Your task to perform on an android device: set default search engine in the chrome app Image 0: 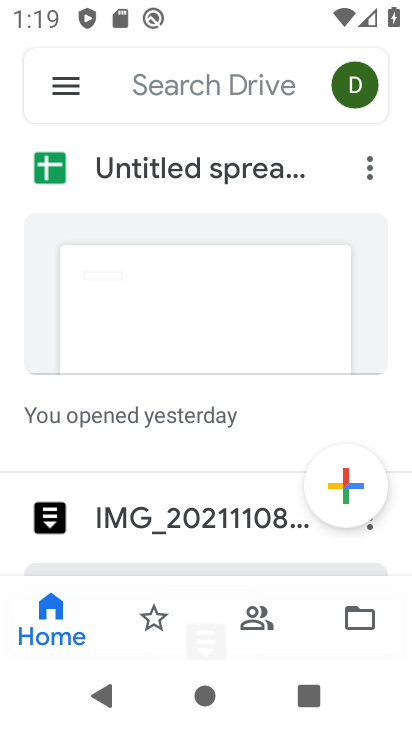
Step 0: press home button
Your task to perform on an android device: set default search engine in the chrome app Image 1: 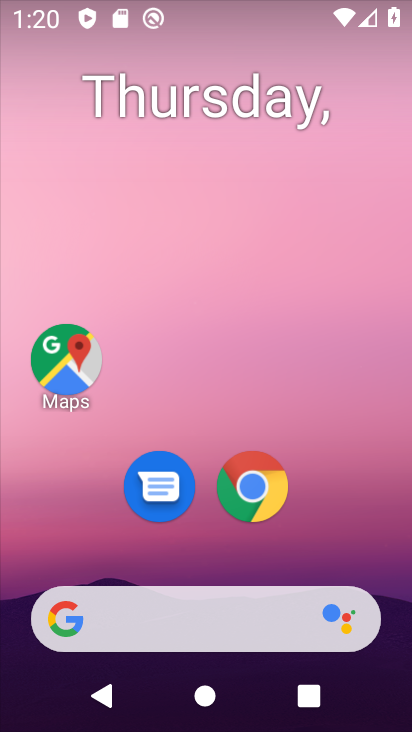
Step 1: click (254, 473)
Your task to perform on an android device: set default search engine in the chrome app Image 2: 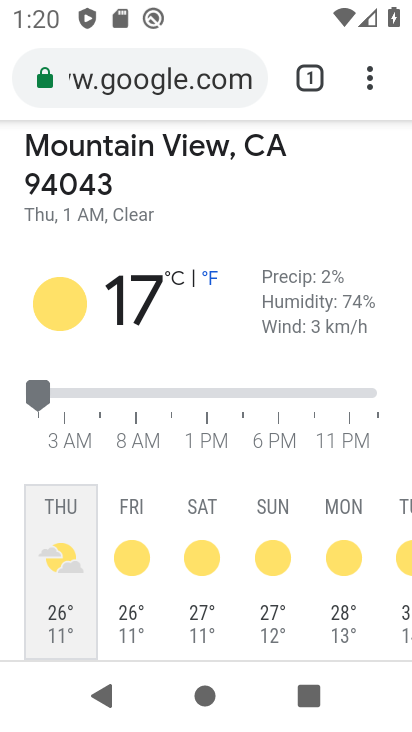
Step 2: click (358, 87)
Your task to perform on an android device: set default search engine in the chrome app Image 3: 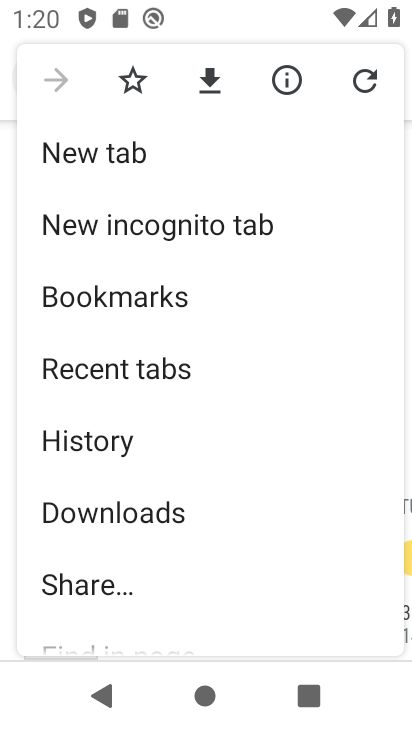
Step 3: drag from (220, 556) to (217, 215)
Your task to perform on an android device: set default search engine in the chrome app Image 4: 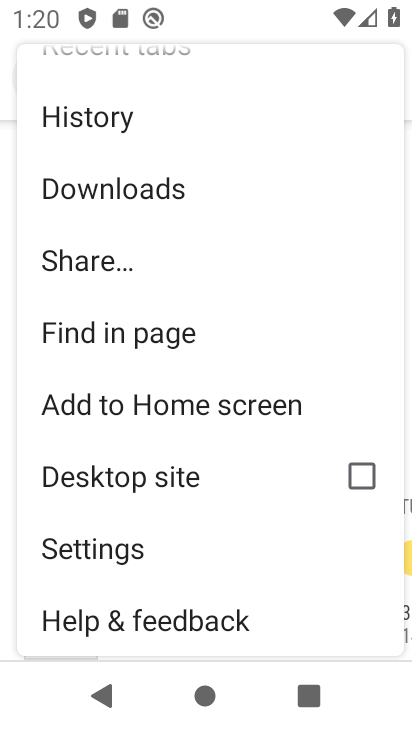
Step 4: click (193, 548)
Your task to perform on an android device: set default search engine in the chrome app Image 5: 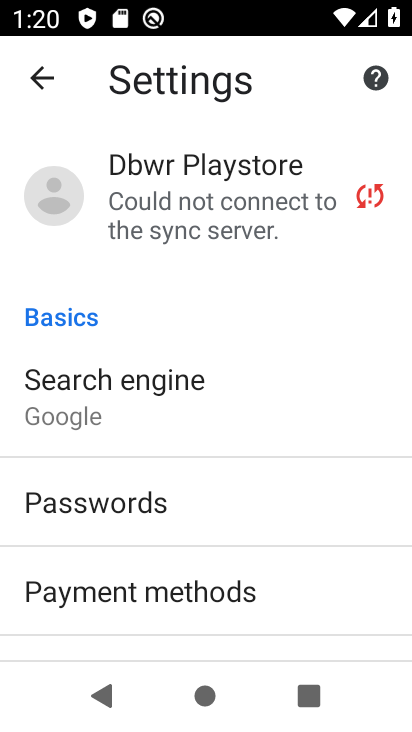
Step 5: click (171, 423)
Your task to perform on an android device: set default search engine in the chrome app Image 6: 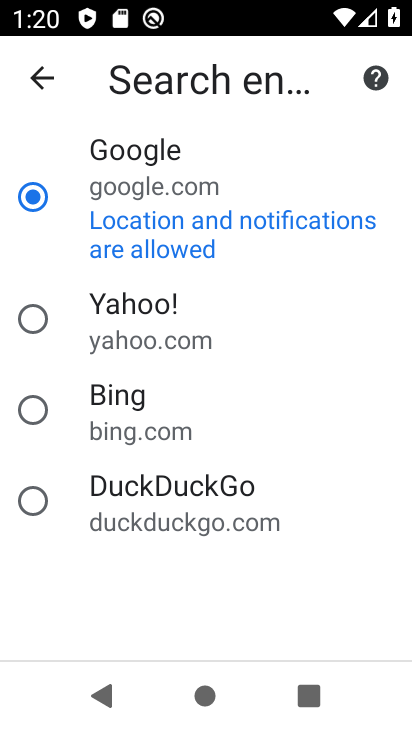
Step 6: click (228, 346)
Your task to perform on an android device: set default search engine in the chrome app Image 7: 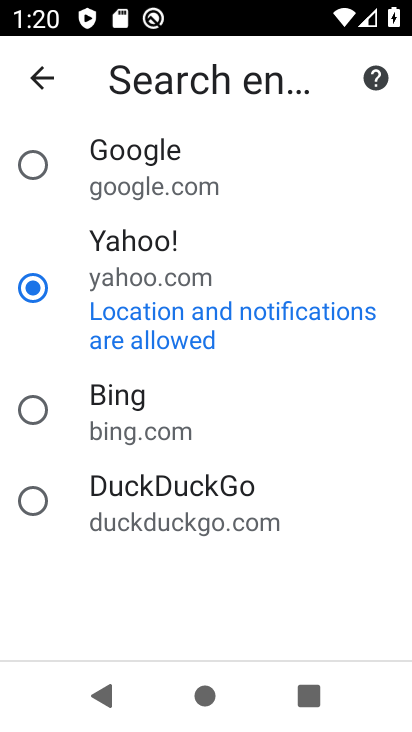
Step 7: task complete